Your task to perform on an android device: allow notifications from all sites in the chrome app Image 0: 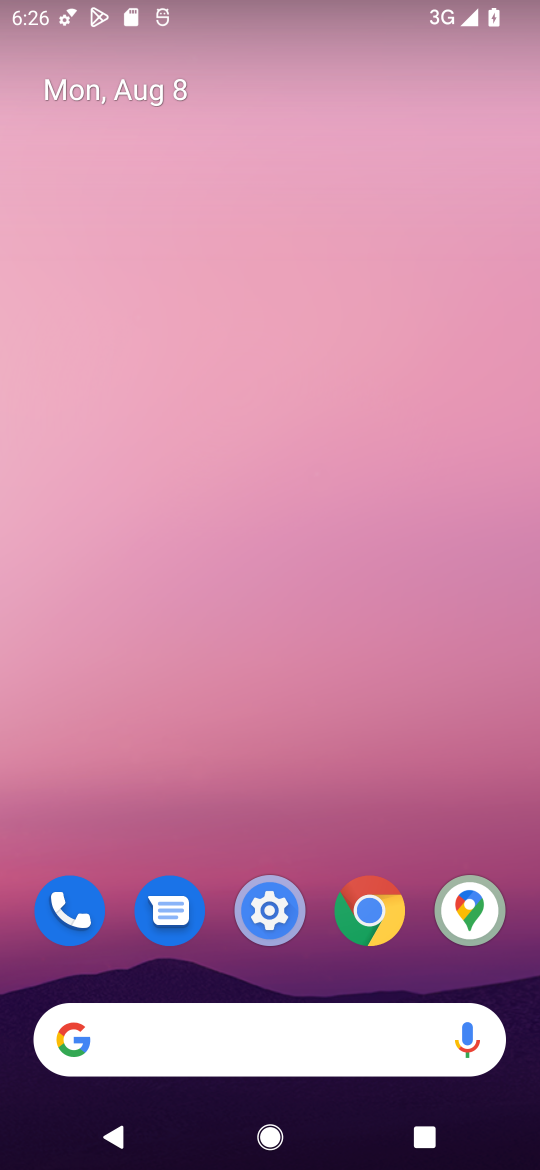
Step 0: click (366, 915)
Your task to perform on an android device: allow notifications from all sites in the chrome app Image 1: 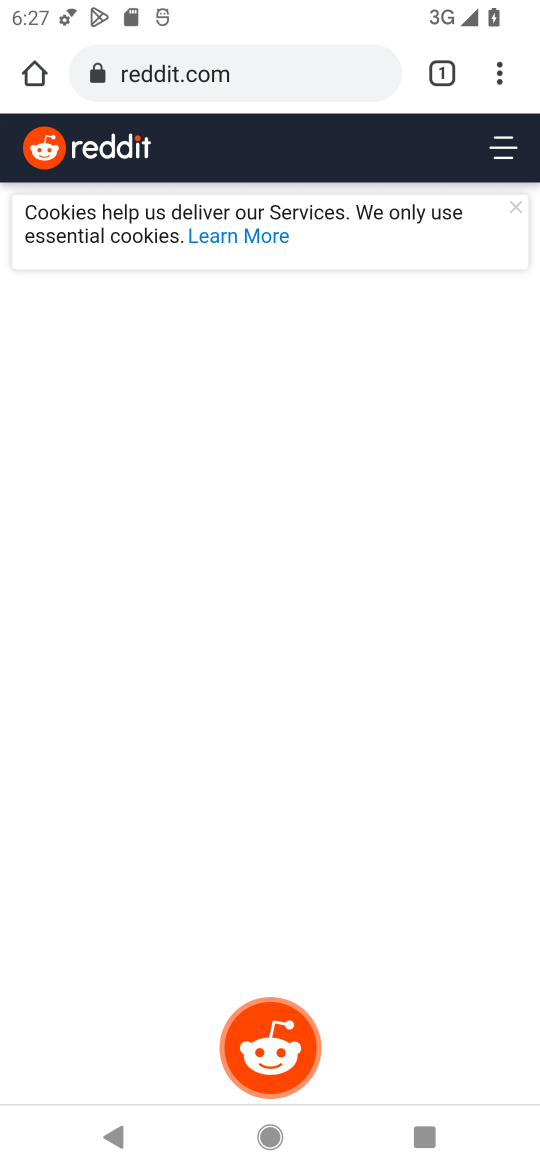
Step 1: click (499, 71)
Your task to perform on an android device: allow notifications from all sites in the chrome app Image 2: 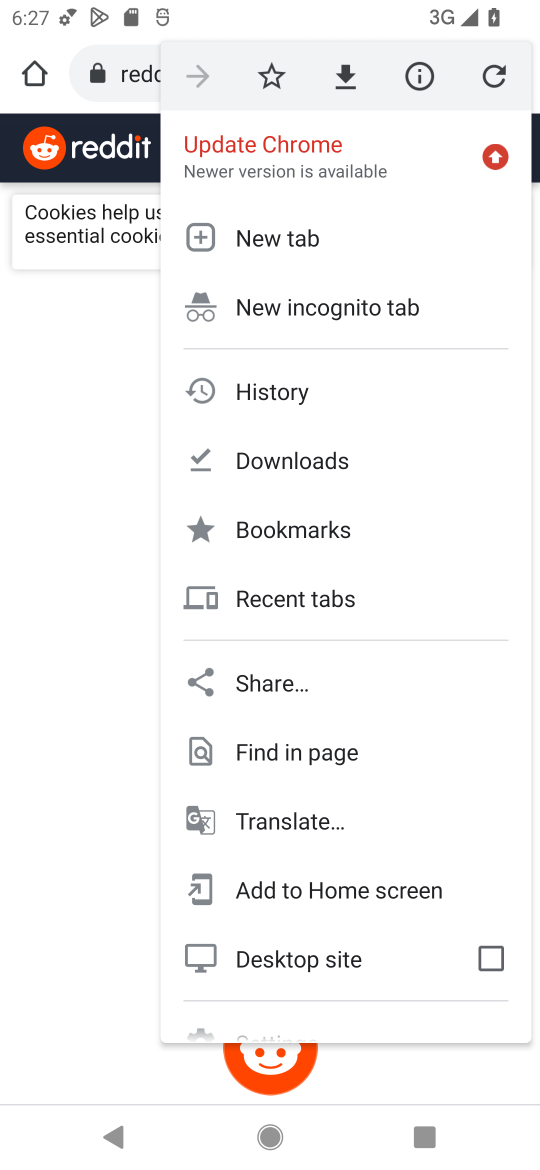
Step 2: drag from (369, 663) to (368, 434)
Your task to perform on an android device: allow notifications from all sites in the chrome app Image 3: 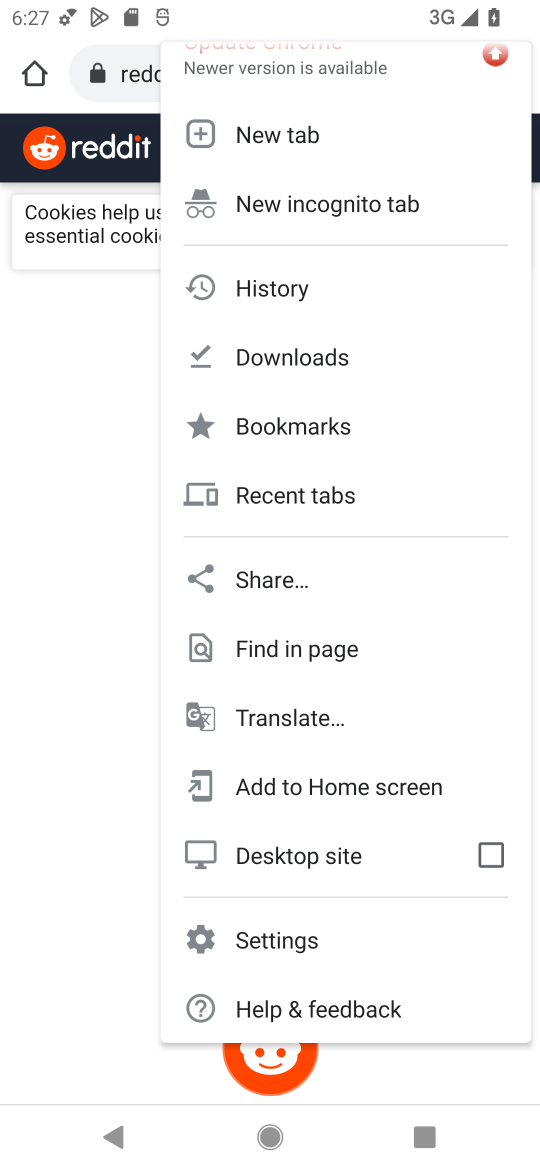
Step 3: click (242, 940)
Your task to perform on an android device: allow notifications from all sites in the chrome app Image 4: 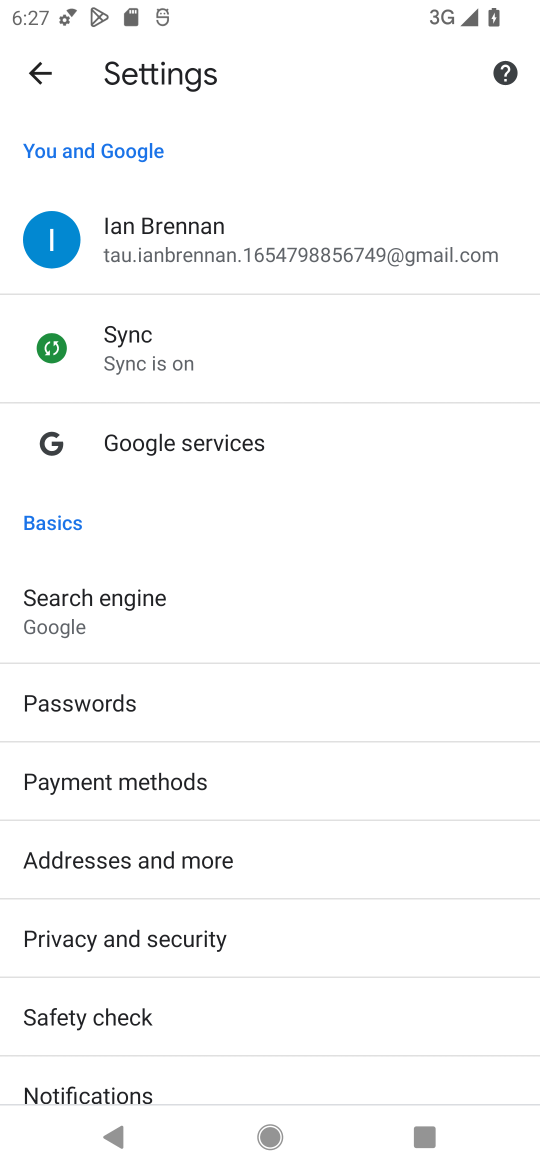
Step 4: click (206, 1080)
Your task to perform on an android device: allow notifications from all sites in the chrome app Image 5: 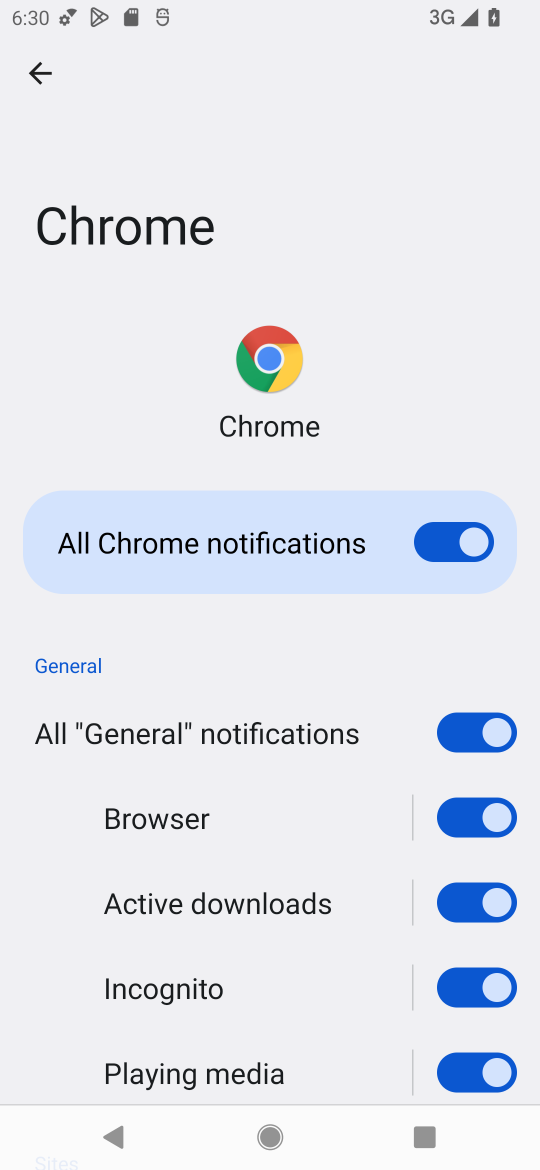
Step 5: task complete